Your task to perform on an android device: Go to location settings Image 0: 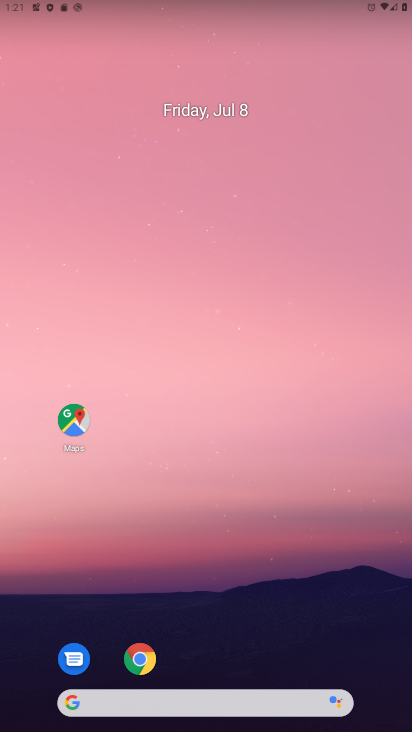
Step 0: drag from (208, 573) to (174, 226)
Your task to perform on an android device: Go to location settings Image 1: 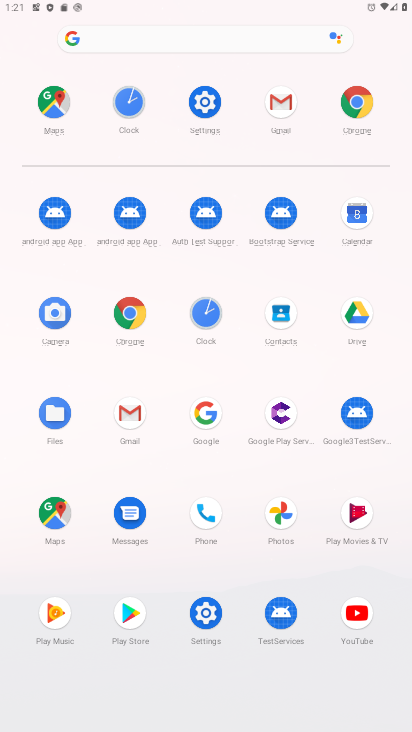
Step 1: click (203, 101)
Your task to perform on an android device: Go to location settings Image 2: 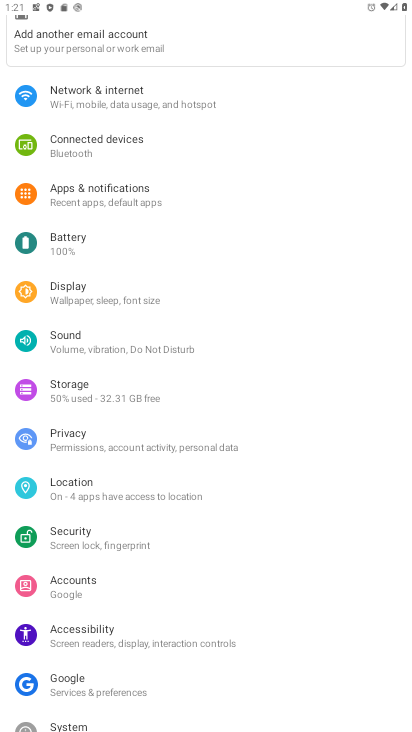
Step 2: click (71, 478)
Your task to perform on an android device: Go to location settings Image 3: 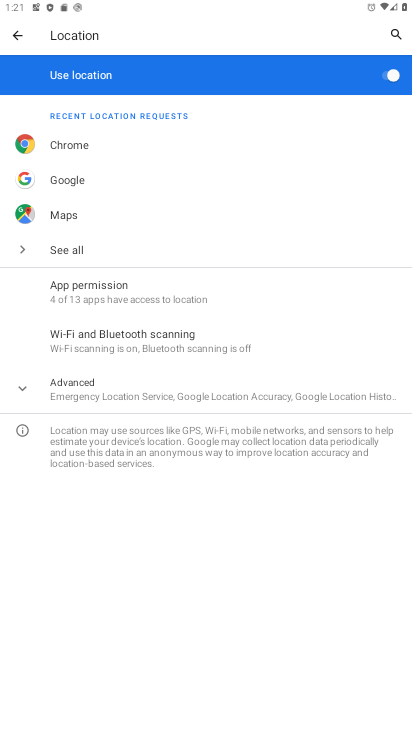
Step 3: task complete